Your task to perform on an android device: Open network settings Image 0: 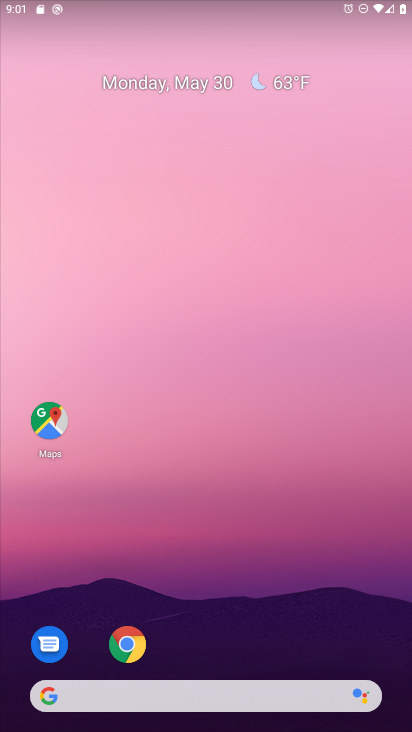
Step 0: drag from (206, 633) to (213, 32)
Your task to perform on an android device: Open network settings Image 1: 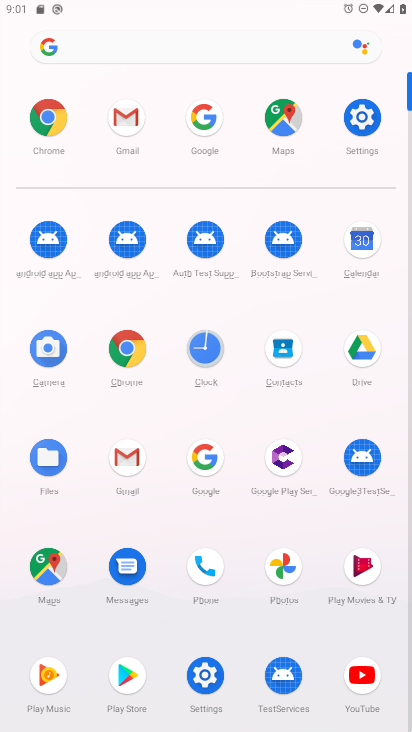
Step 1: click (360, 121)
Your task to perform on an android device: Open network settings Image 2: 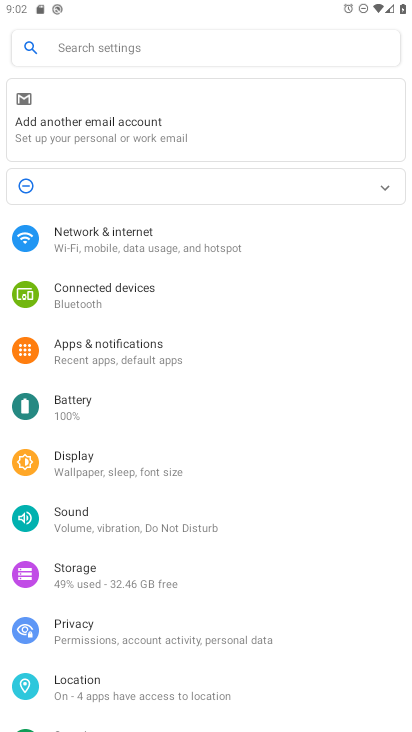
Step 2: click (110, 245)
Your task to perform on an android device: Open network settings Image 3: 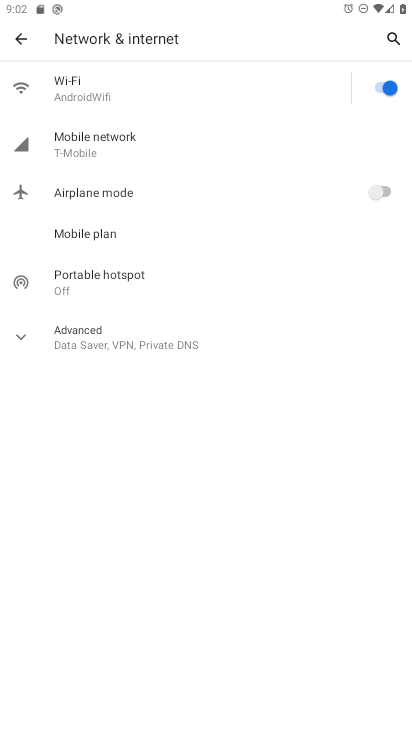
Step 3: click (102, 151)
Your task to perform on an android device: Open network settings Image 4: 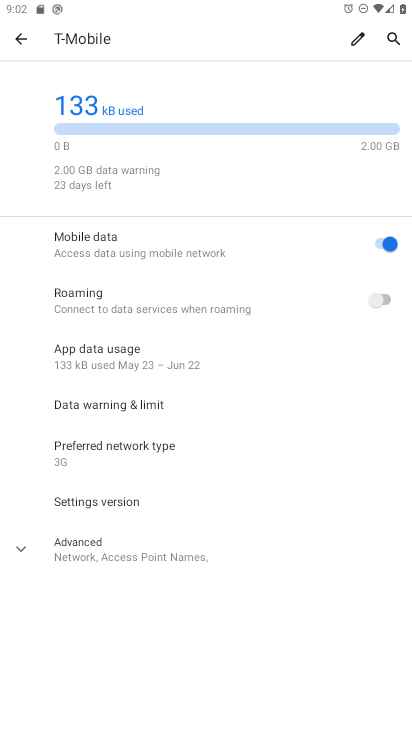
Step 4: task complete